Your task to perform on an android device: Search for vegetarian restaurants on Maps Image 0: 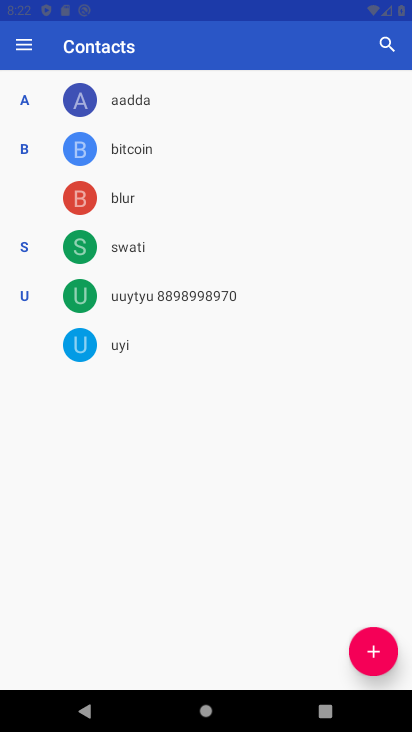
Step 0: press home button
Your task to perform on an android device: Search for vegetarian restaurants on Maps Image 1: 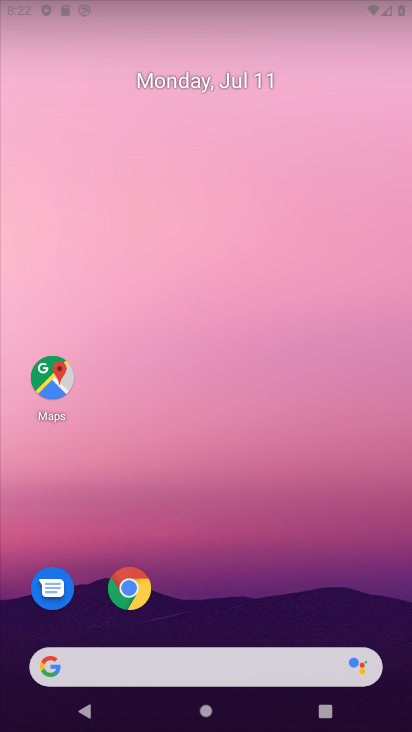
Step 1: click (47, 376)
Your task to perform on an android device: Search for vegetarian restaurants on Maps Image 2: 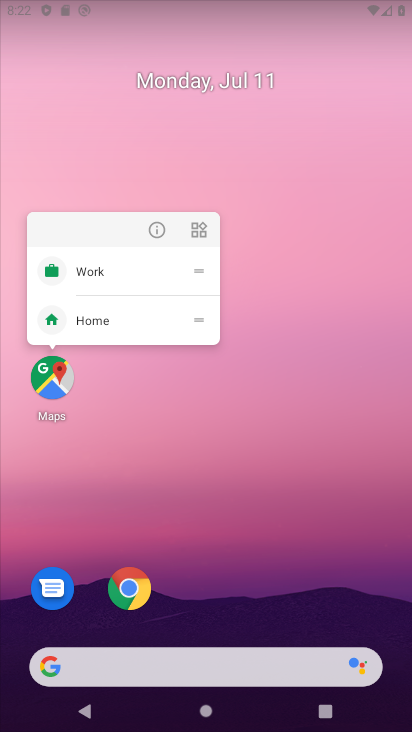
Step 2: click (47, 376)
Your task to perform on an android device: Search for vegetarian restaurants on Maps Image 3: 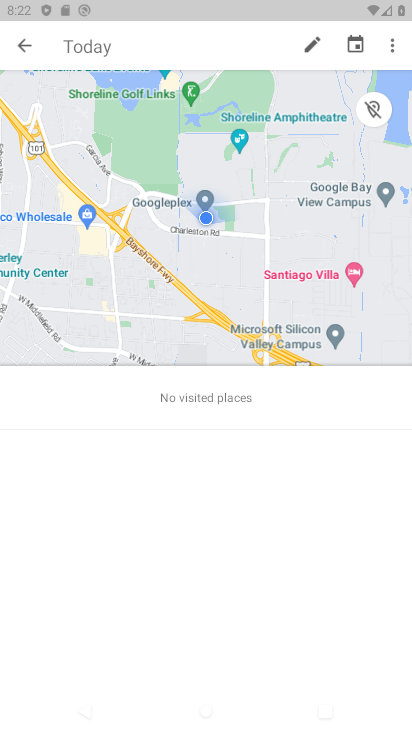
Step 3: click (23, 48)
Your task to perform on an android device: Search for vegetarian restaurants on Maps Image 4: 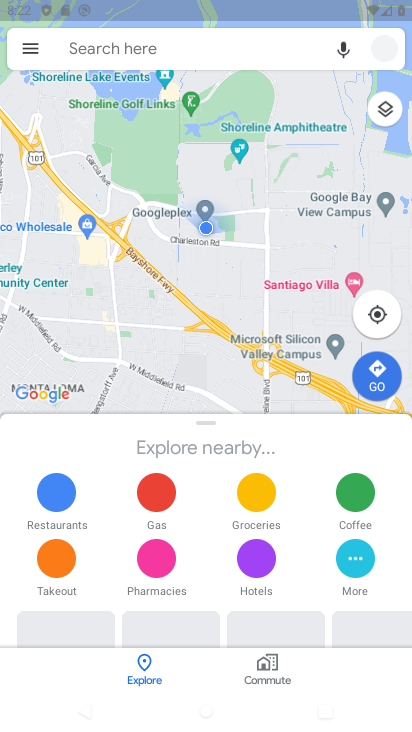
Step 4: click (157, 54)
Your task to perform on an android device: Search for vegetarian restaurants on Maps Image 5: 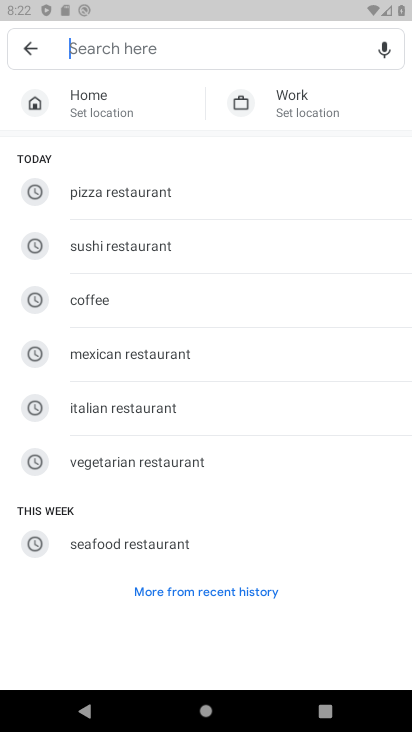
Step 5: click (199, 458)
Your task to perform on an android device: Search for vegetarian restaurants on Maps Image 6: 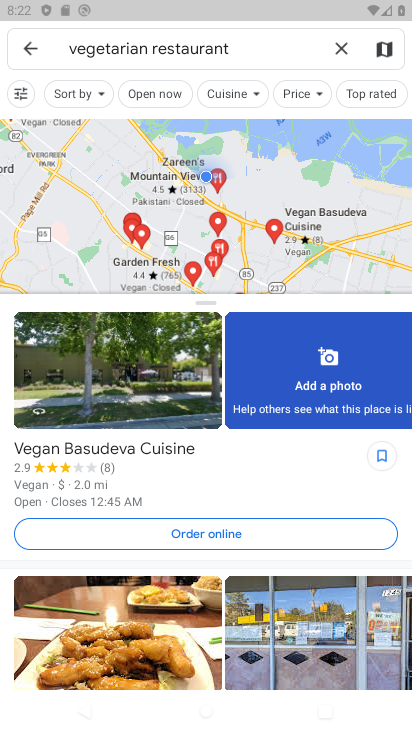
Step 6: task complete